Your task to perform on an android device: Go to Amazon Image 0: 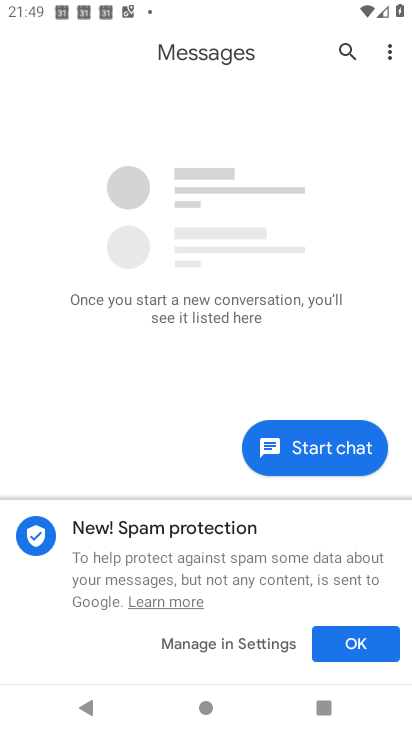
Step 0: press home button
Your task to perform on an android device: Go to Amazon Image 1: 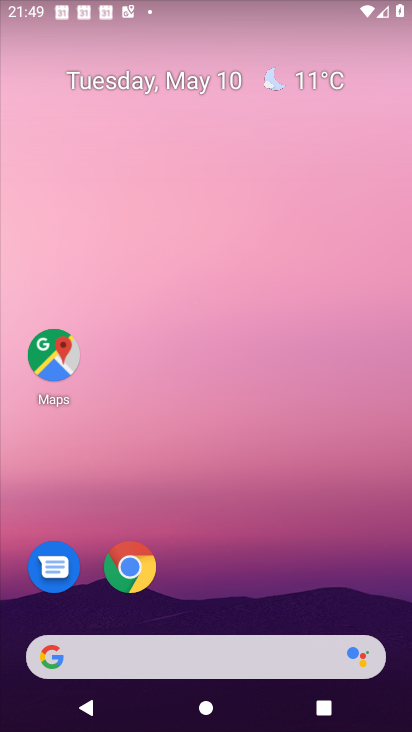
Step 1: click (121, 555)
Your task to perform on an android device: Go to Amazon Image 2: 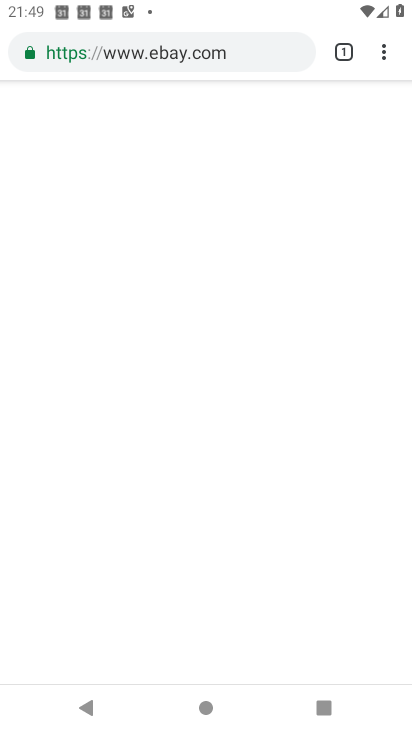
Step 2: click (349, 52)
Your task to perform on an android device: Go to Amazon Image 3: 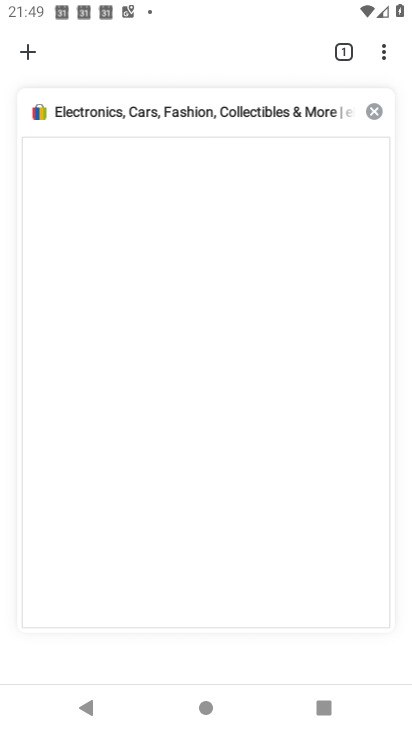
Step 3: click (377, 107)
Your task to perform on an android device: Go to Amazon Image 4: 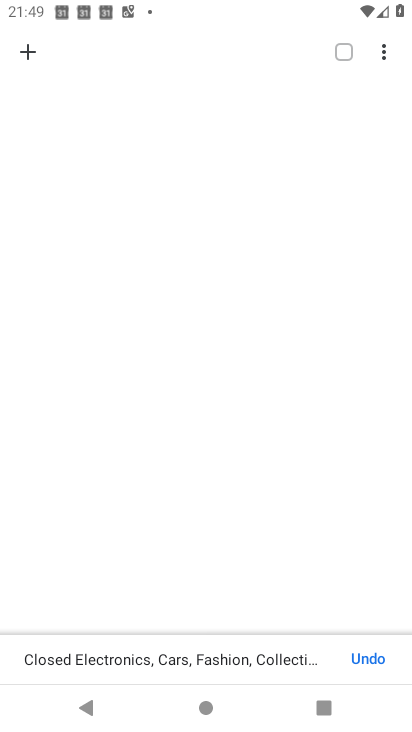
Step 4: click (29, 55)
Your task to perform on an android device: Go to Amazon Image 5: 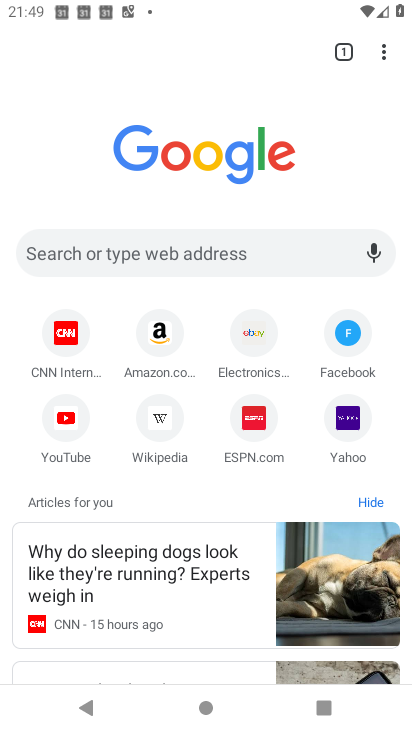
Step 5: click (161, 337)
Your task to perform on an android device: Go to Amazon Image 6: 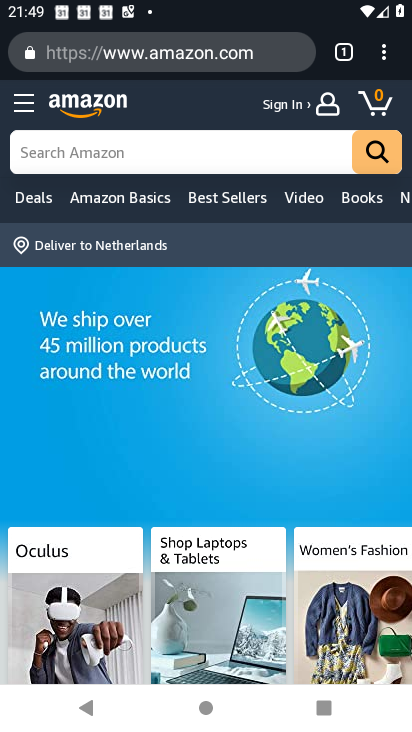
Step 6: task complete